Your task to perform on an android device: Go to sound settings Image 0: 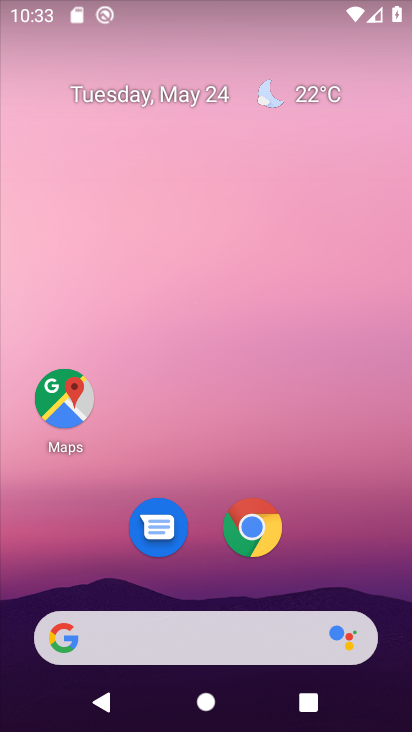
Step 0: drag from (133, 621) to (306, 175)
Your task to perform on an android device: Go to sound settings Image 1: 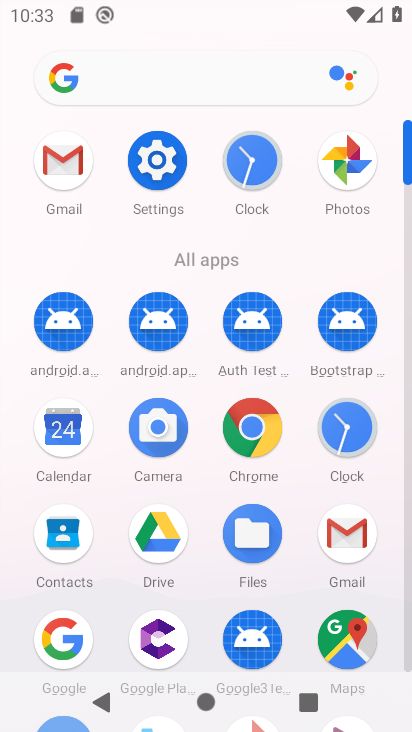
Step 1: click (159, 169)
Your task to perform on an android device: Go to sound settings Image 2: 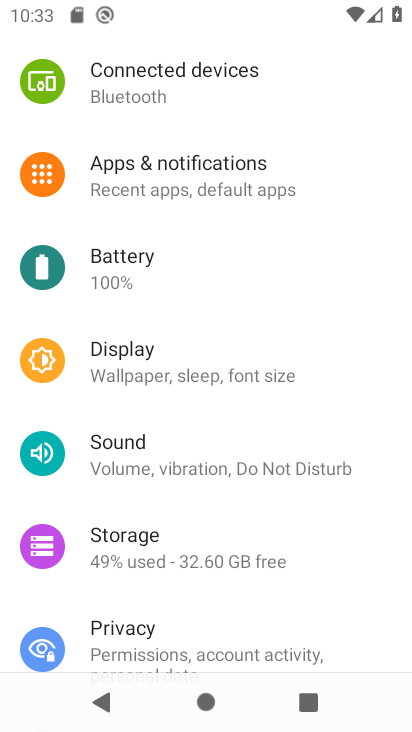
Step 2: click (139, 449)
Your task to perform on an android device: Go to sound settings Image 3: 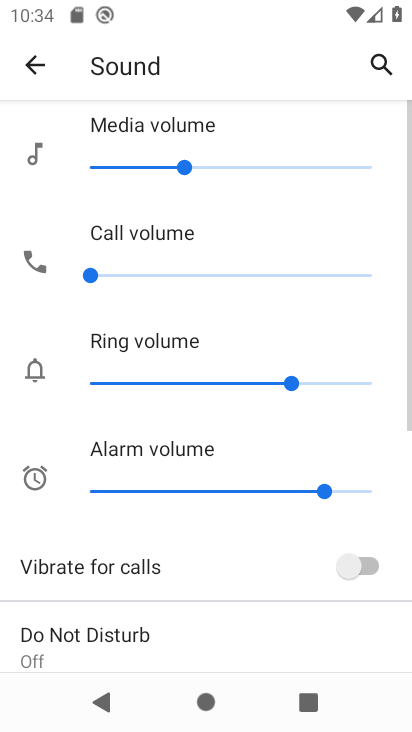
Step 3: task complete